Your task to perform on an android device: Go to internet settings Image 0: 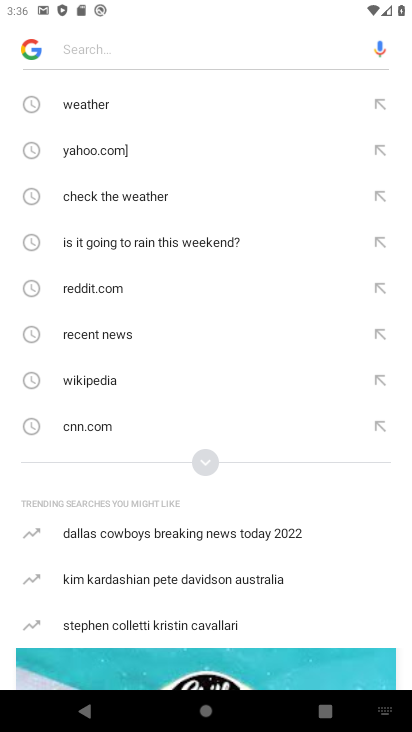
Step 0: press home button
Your task to perform on an android device: Go to internet settings Image 1: 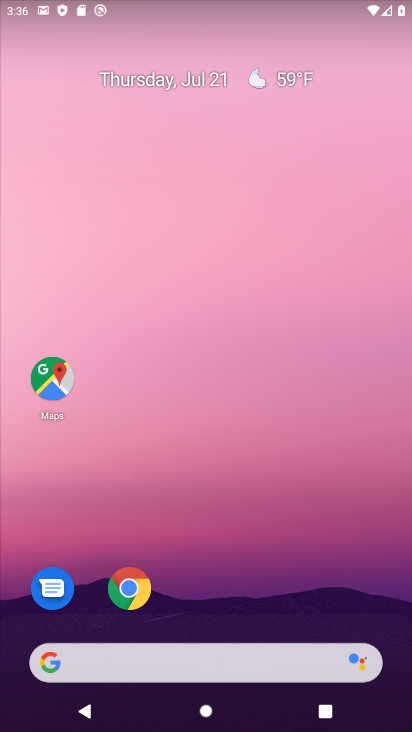
Step 1: drag from (209, 556) to (222, 104)
Your task to perform on an android device: Go to internet settings Image 2: 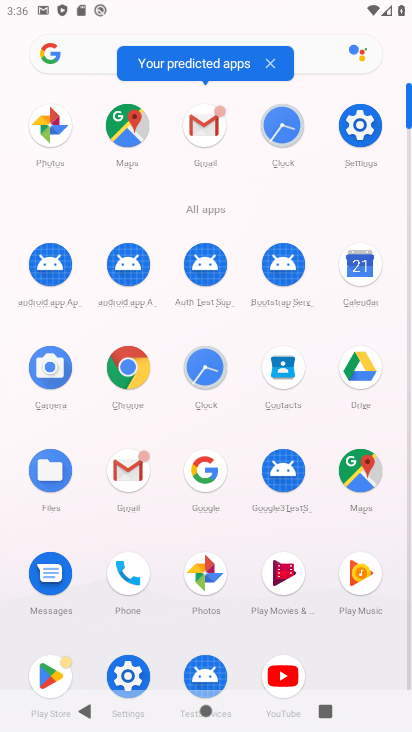
Step 2: click (367, 130)
Your task to perform on an android device: Go to internet settings Image 3: 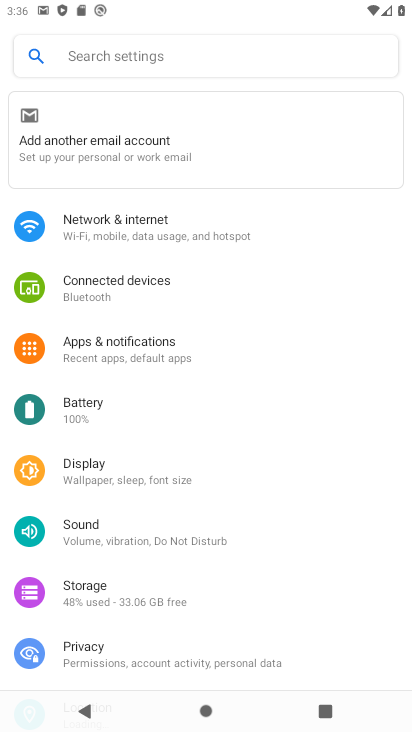
Step 3: click (161, 226)
Your task to perform on an android device: Go to internet settings Image 4: 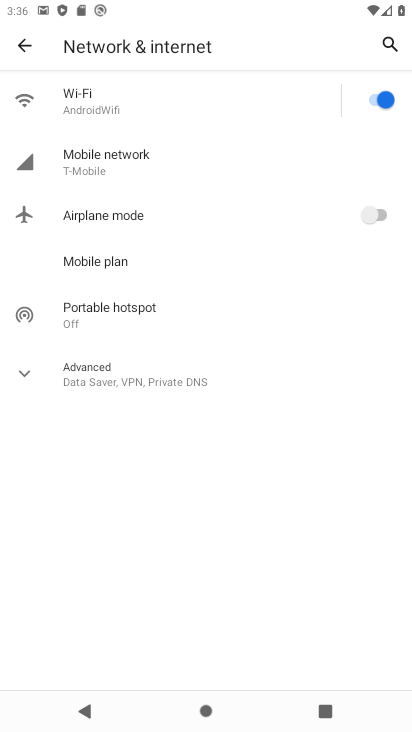
Step 4: task complete